Your task to perform on an android device: Go to Google Image 0: 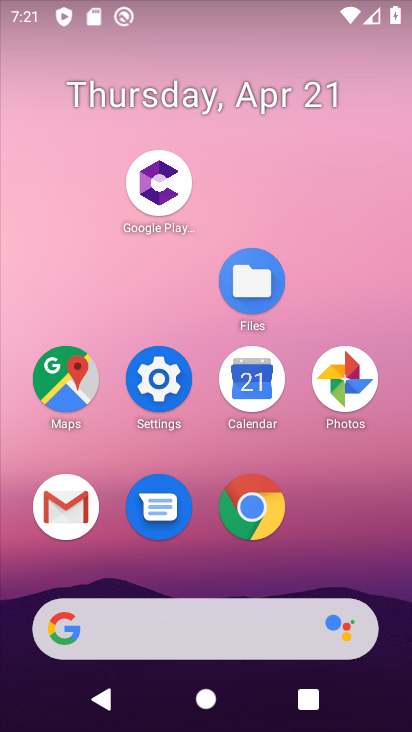
Step 0: click (61, 623)
Your task to perform on an android device: Go to Google Image 1: 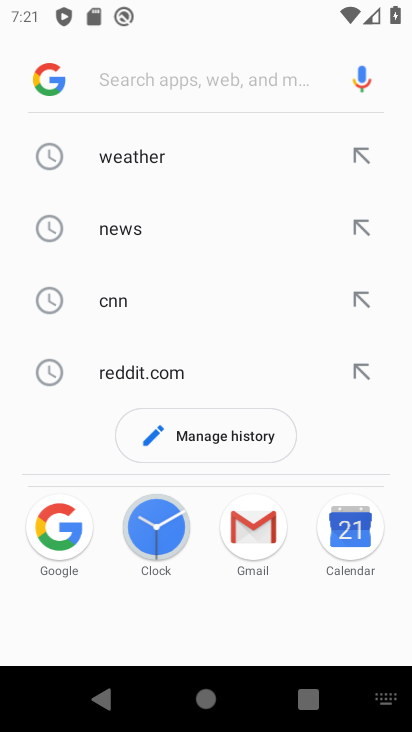
Step 1: click (48, 75)
Your task to perform on an android device: Go to Google Image 2: 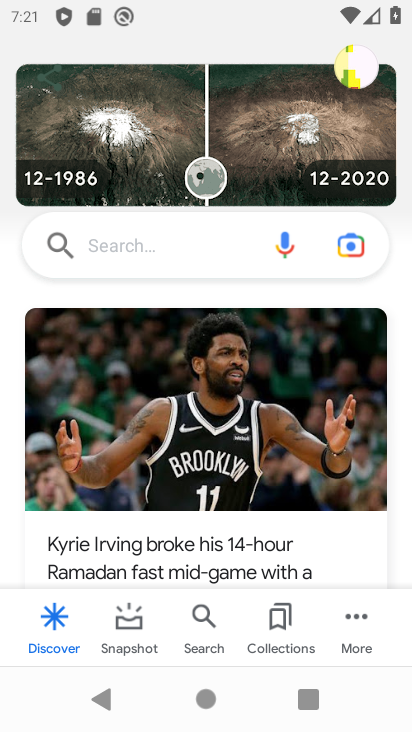
Step 2: task complete